Your task to perform on an android device: add a contact in the contacts app Image 0: 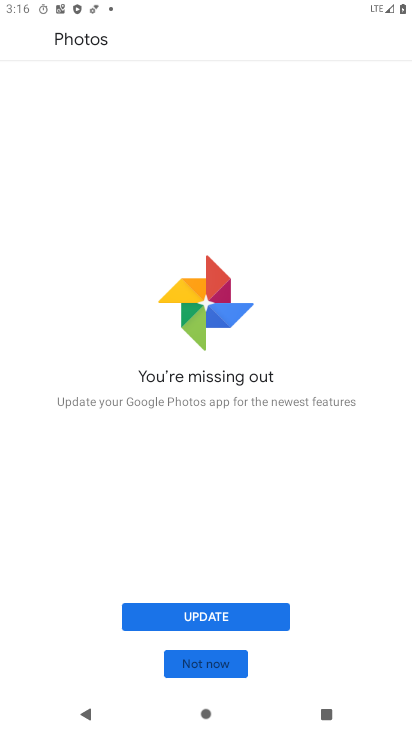
Step 0: press home button
Your task to perform on an android device: add a contact in the contacts app Image 1: 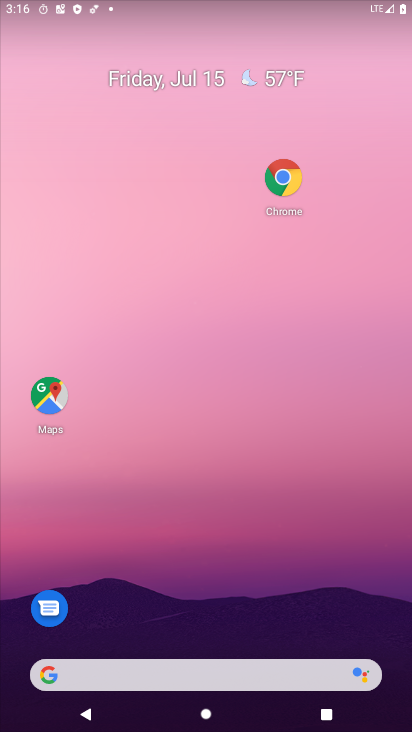
Step 1: drag from (170, 625) to (215, 58)
Your task to perform on an android device: add a contact in the contacts app Image 2: 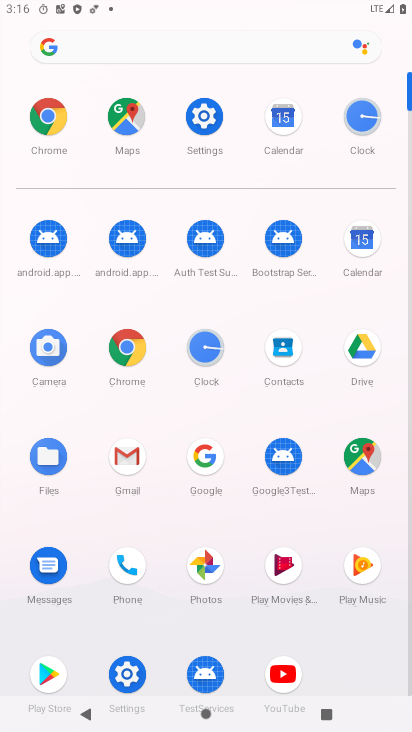
Step 2: click (287, 355)
Your task to perform on an android device: add a contact in the contacts app Image 3: 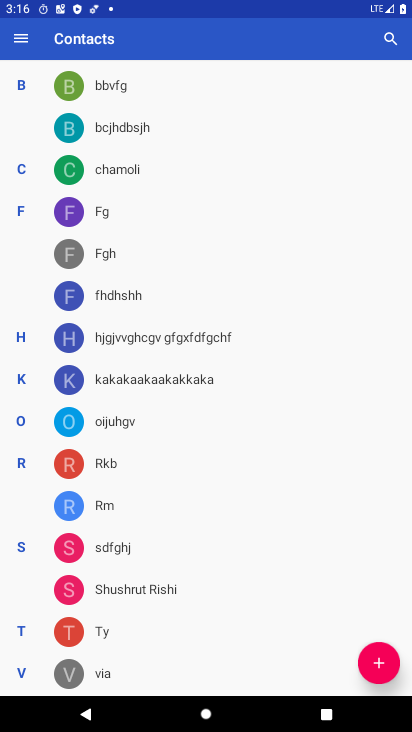
Step 3: click (379, 675)
Your task to perform on an android device: add a contact in the contacts app Image 4: 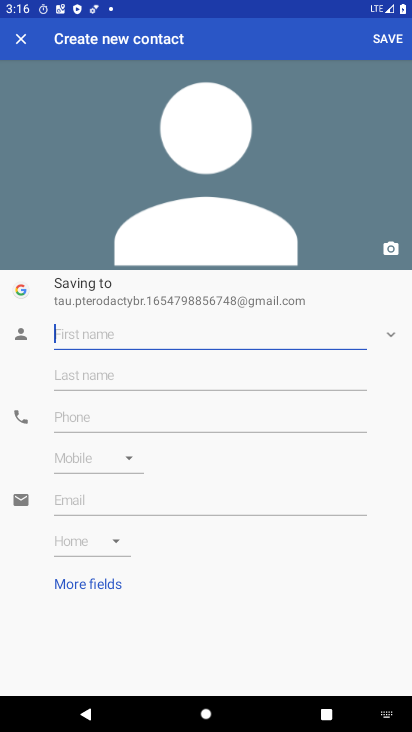
Step 4: type "kuuummmm"
Your task to perform on an android device: add a contact in the contacts app Image 5: 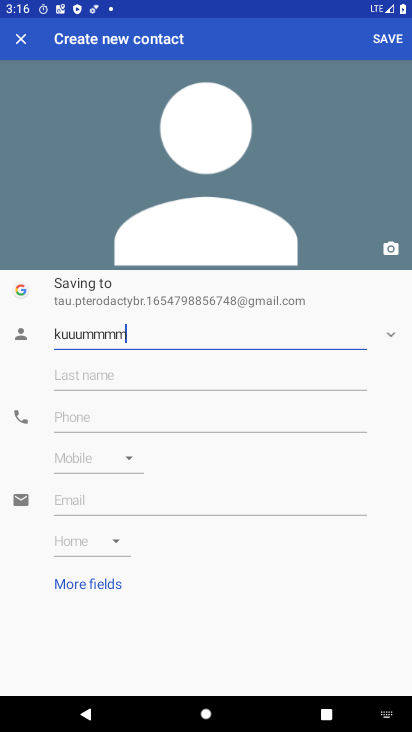
Step 5: click (108, 418)
Your task to perform on an android device: add a contact in the contacts app Image 6: 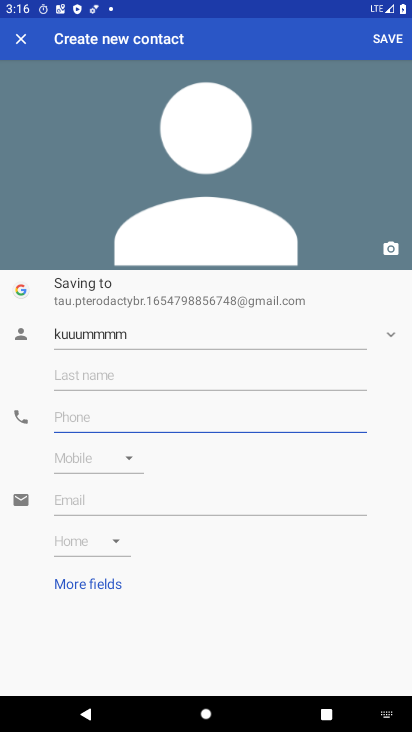
Step 6: type "07--65432"
Your task to perform on an android device: add a contact in the contacts app Image 7: 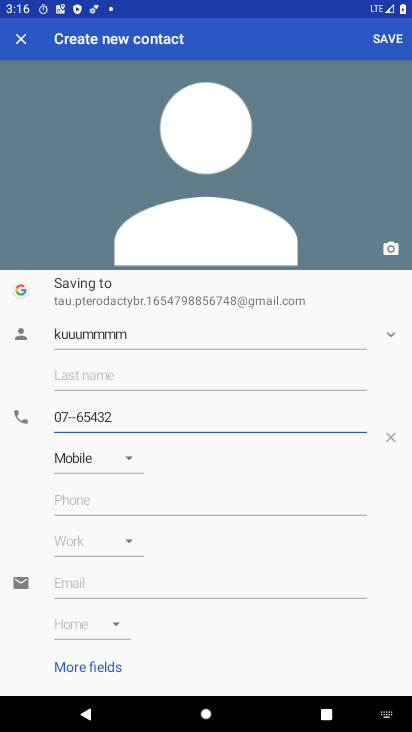
Step 7: click (408, 31)
Your task to perform on an android device: add a contact in the contacts app Image 8: 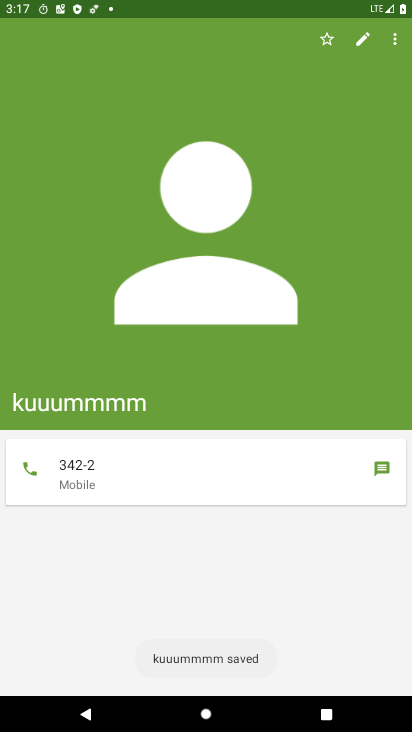
Step 8: click (376, 38)
Your task to perform on an android device: add a contact in the contacts app Image 9: 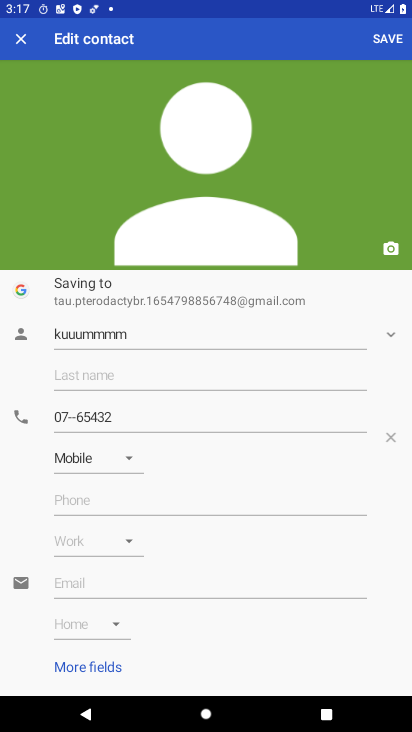
Step 9: click (10, 35)
Your task to perform on an android device: add a contact in the contacts app Image 10: 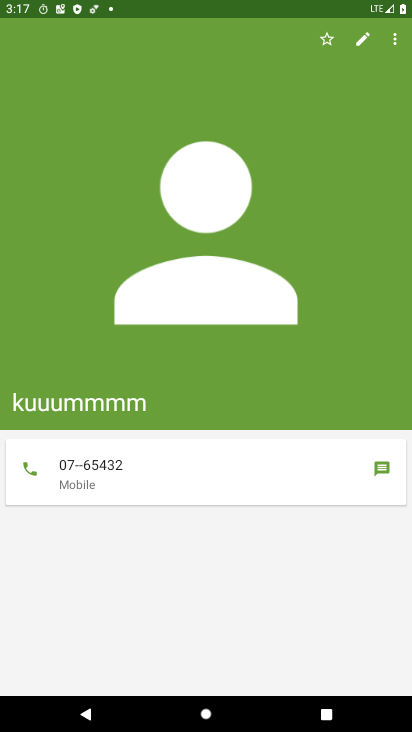
Step 10: task complete